Your task to perform on an android device: Open Chrome and go to the settings page Image 0: 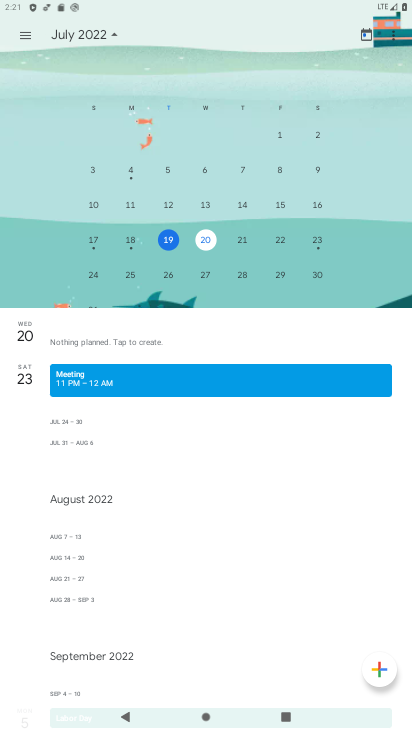
Step 0: press home button
Your task to perform on an android device: Open Chrome and go to the settings page Image 1: 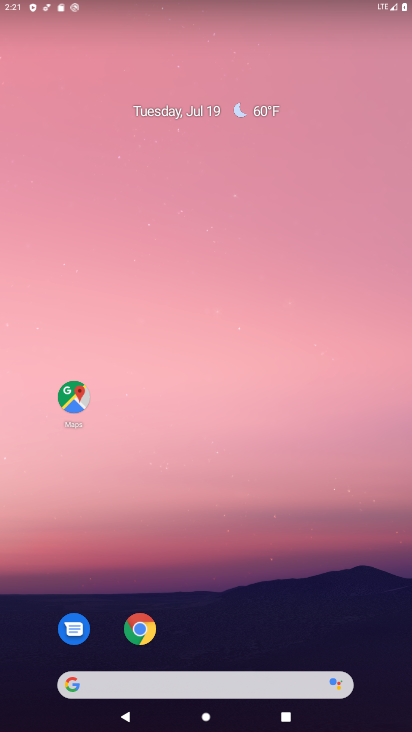
Step 1: click (142, 644)
Your task to perform on an android device: Open Chrome and go to the settings page Image 2: 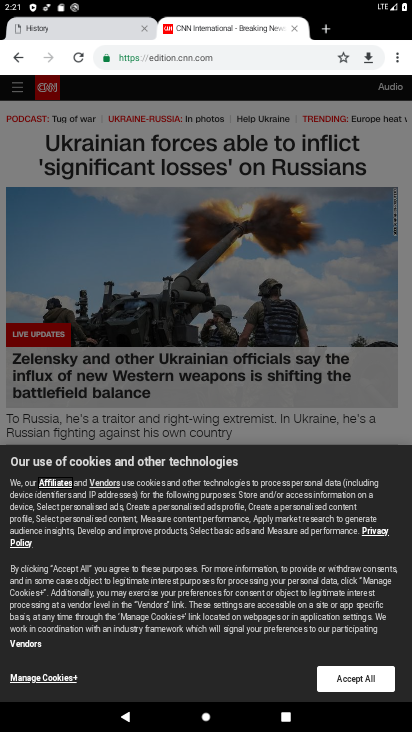
Step 2: click (394, 53)
Your task to perform on an android device: Open Chrome and go to the settings page Image 3: 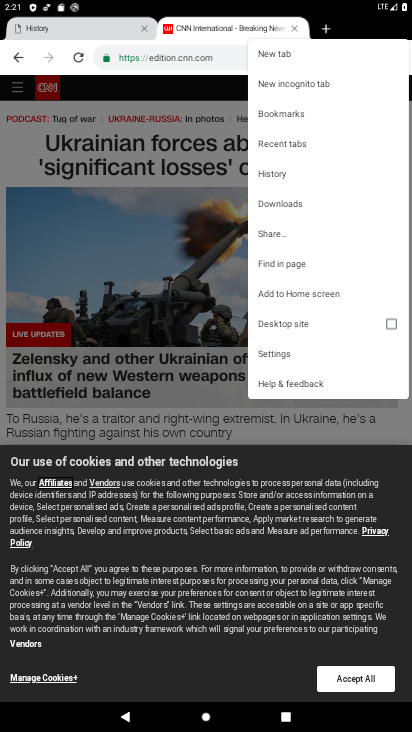
Step 3: click (300, 352)
Your task to perform on an android device: Open Chrome and go to the settings page Image 4: 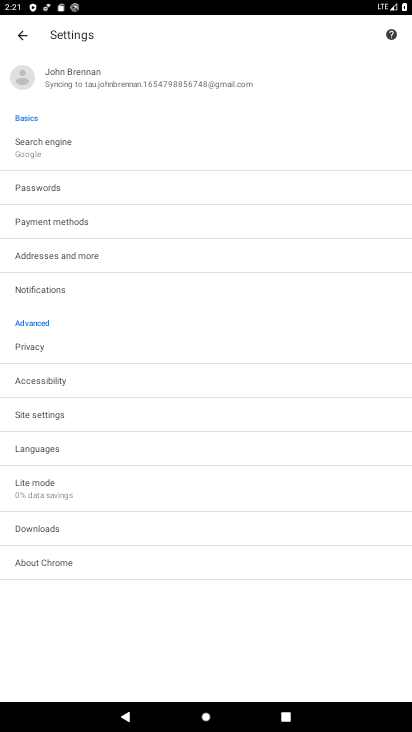
Step 4: task complete